Your task to perform on an android device: see tabs open on other devices in the chrome app Image 0: 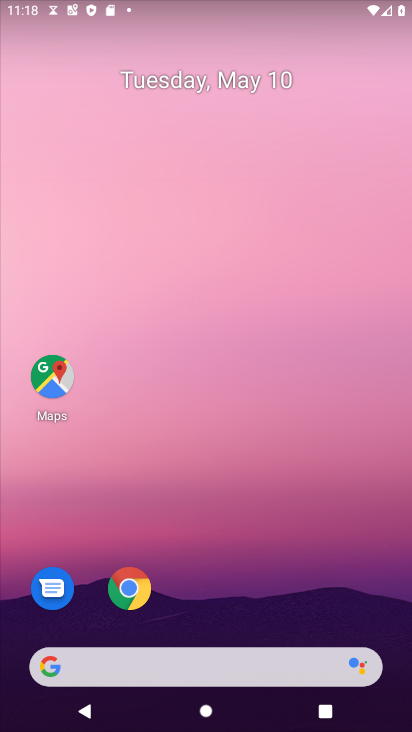
Step 0: drag from (338, 630) to (89, 48)
Your task to perform on an android device: see tabs open on other devices in the chrome app Image 1: 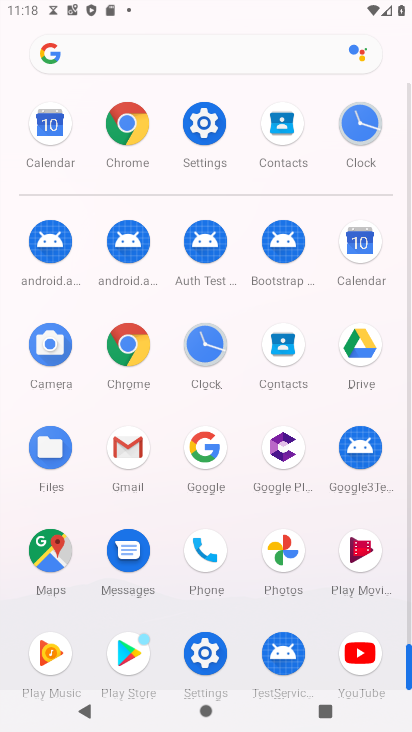
Step 1: click (132, 339)
Your task to perform on an android device: see tabs open on other devices in the chrome app Image 2: 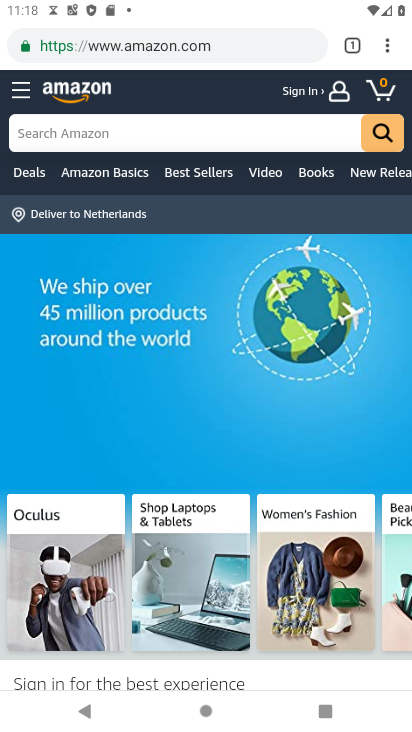
Step 2: drag from (383, 45) to (223, 222)
Your task to perform on an android device: see tabs open on other devices in the chrome app Image 3: 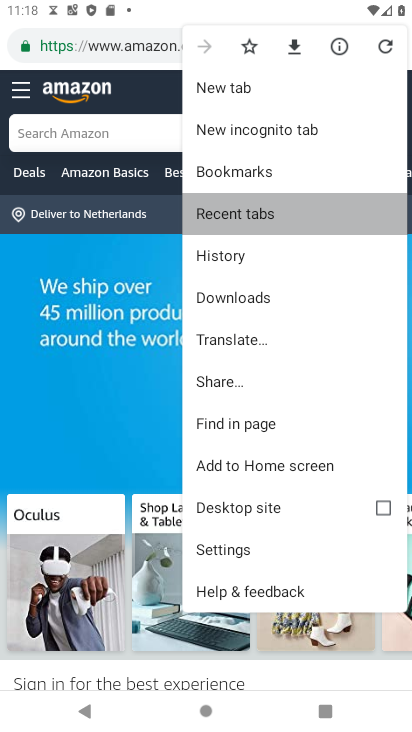
Step 3: click (224, 221)
Your task to perform on an android device: see tabs open on other devices in the chrome app Image 4: 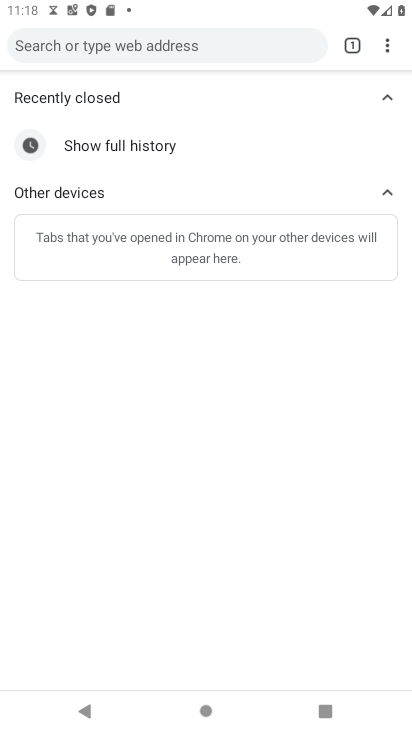
Step 4: task complete